Your task to perform on an android device: What is the recent news? Image 0: 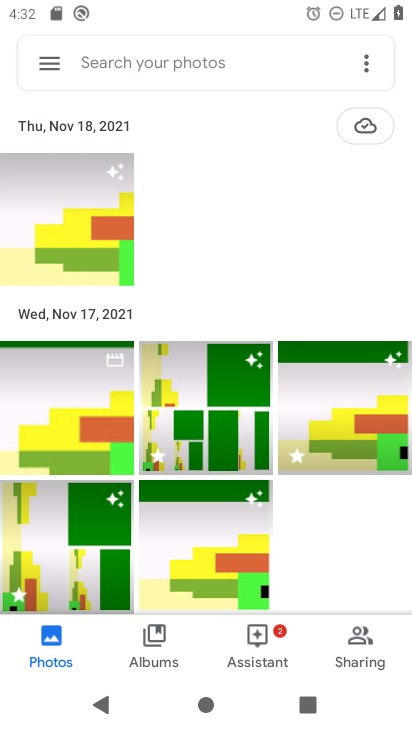
Step 0: press home button
Your task to perform on an android device: What is the recent news? Image 1: 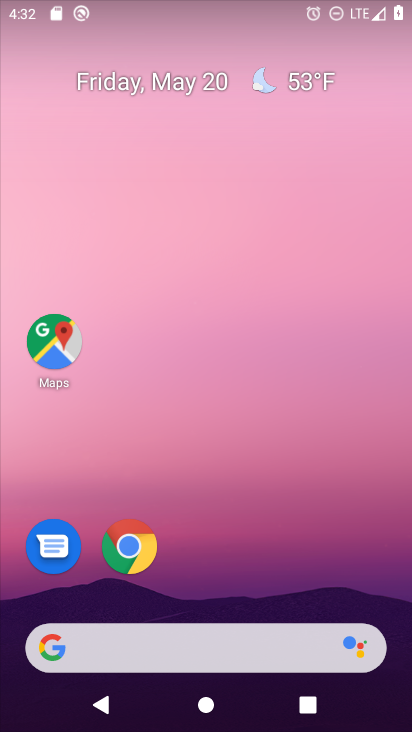
Step 1: click (138, 544)
Your task to perform on an android device: What is the recent news? Image 2: 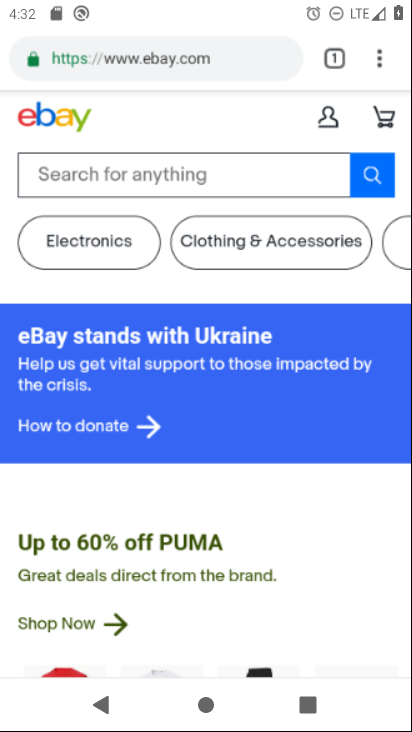
Step 2: click (215, 51)
Your task to perform on an android device: What is the recent news? Image 3: 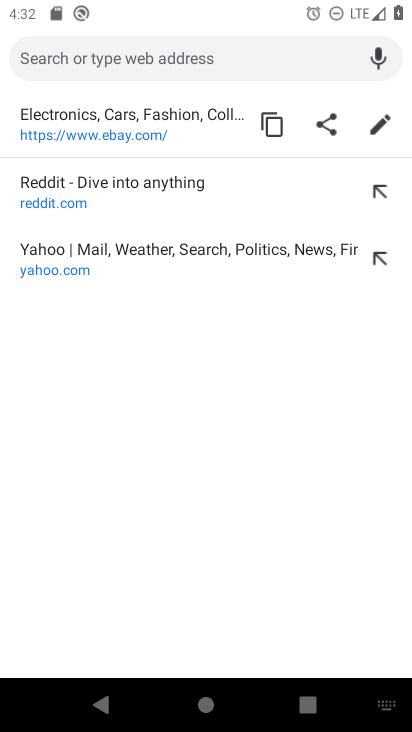
Step 3: type "news"
Your task to perform on an android device: What is the recent news? Image 4: 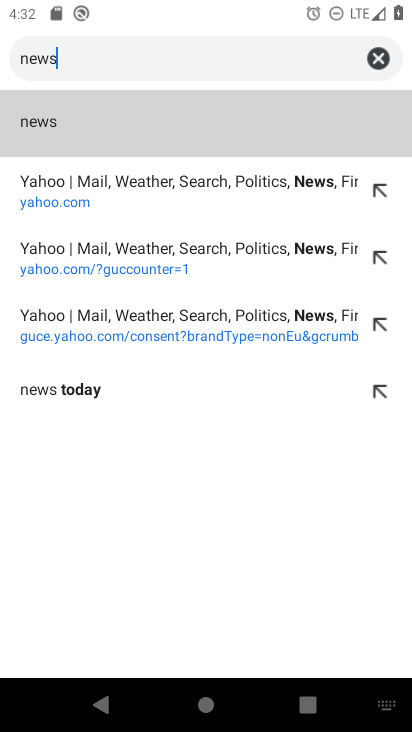
Step 4: click (58, 120)
Your task to perform on an android device: What is the recent news? Image 5: 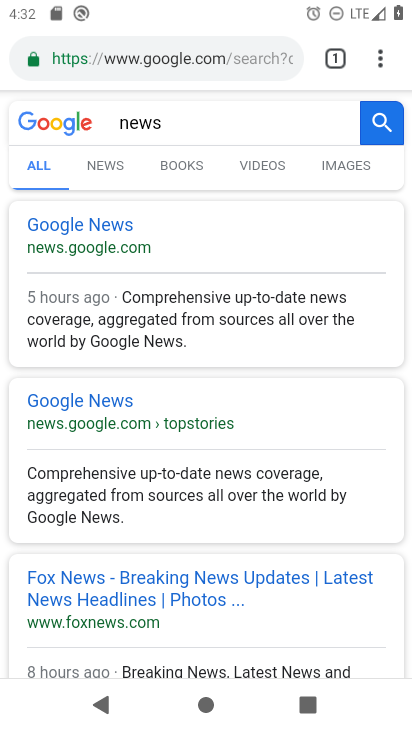
Step 5: click (112, 162)
Your task to perform on an android device: What is the recent news? Image 6: 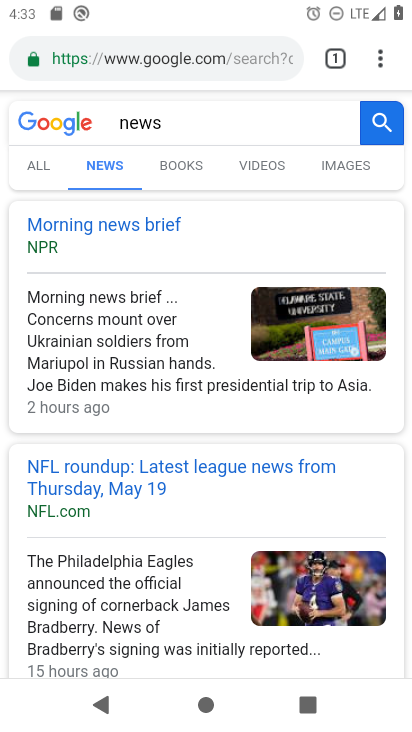
Step 6: task complete